Your task to perform on an android device: Look up the best selling patio furniture on Home Depot Image 0: 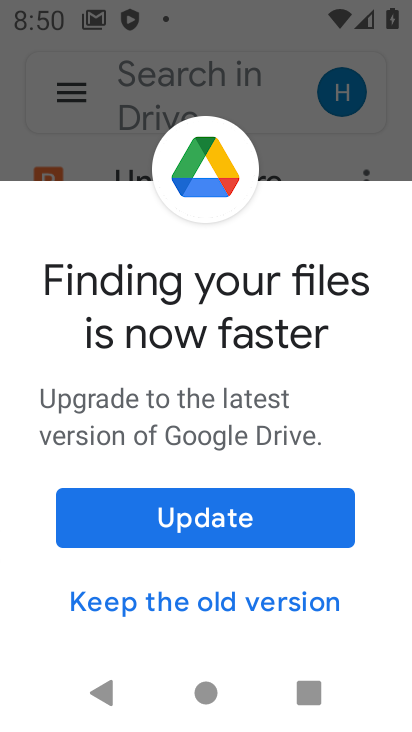
Step 0: click (369, 648)
Your task to perform on an android device: Look up the best selling patio furniture on Home Depot Image 1: 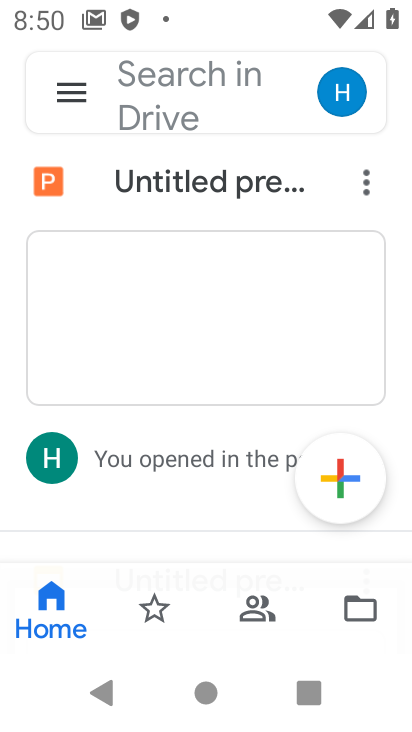
Step 1: click (203, 96)
Your task to perform on an android device: Look up the best selling patio furniture on Home Depot Image 2: 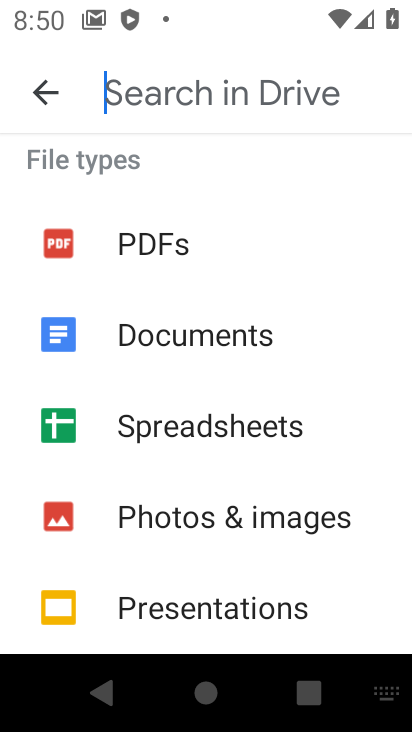
Step 2: press home button
Your task to perform on an android device: Look up the best selling patio furniture on Home Depot Image 3: 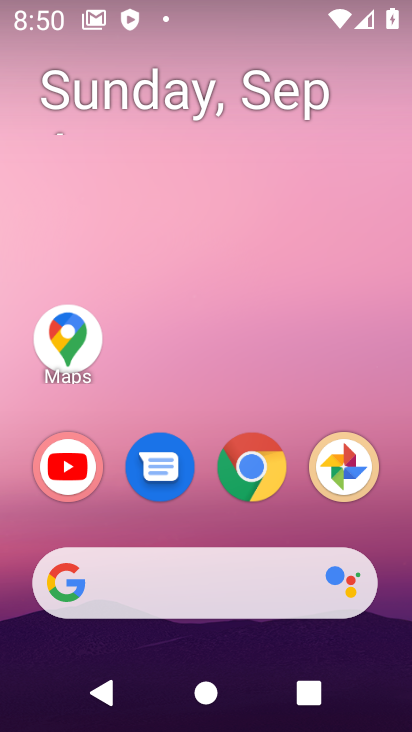
Step 3: click (254, 460)
Your task to perform on an android device: Look up the best selling patio furniture on Home Depot Image 4: 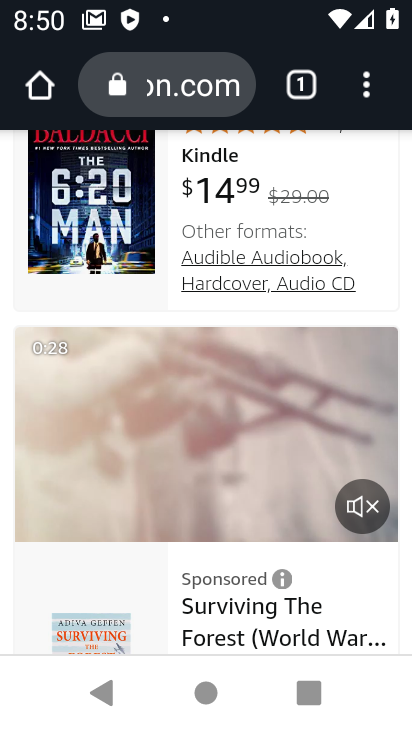
Step 4: click (142, 71)
Your task to perform on an android device: Look up the best selling patio furniture on Home Depot Image 5: 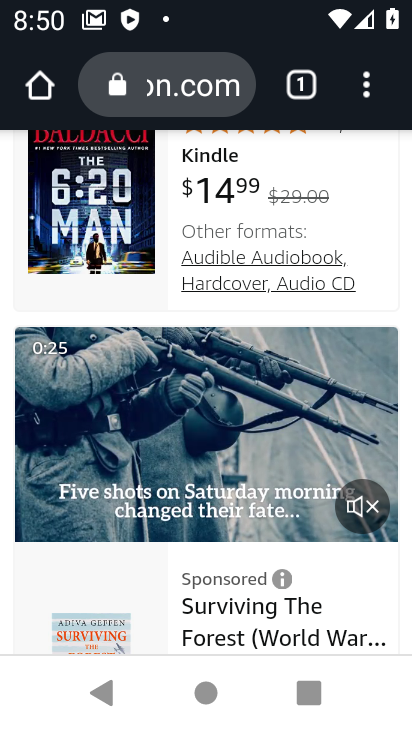
Step 5: click (227, 86)
Your task to perform on an android device: Look up the best selling patio furniture on Home Depot Image 6: 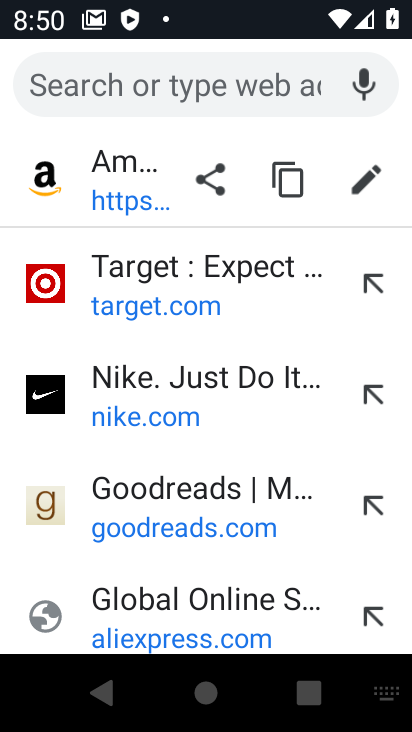
Step 6: type "home depot"
Your task to perform on an android device: Look up the best selling patio furniture on Home Depot Image 7: 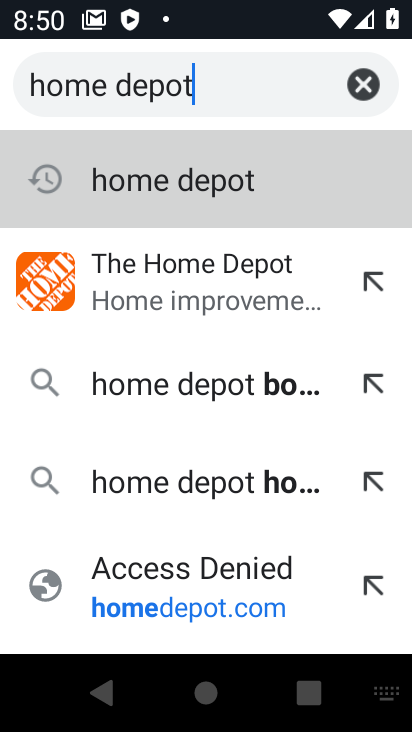
Step 7: click (161, 296)
Your task to perform on an android device: Look up the best selling patio furniture on Home Depot Image 8: 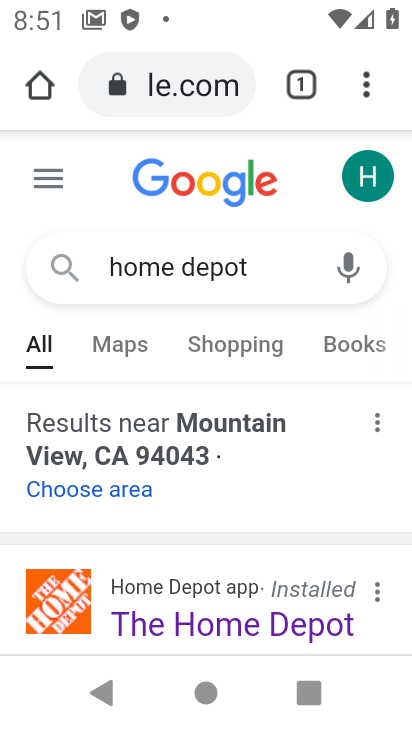
Step 8: click (146, 624)
Your task to perform on an android device: Look up the best selling patio furniture on Home Depot Image 9: 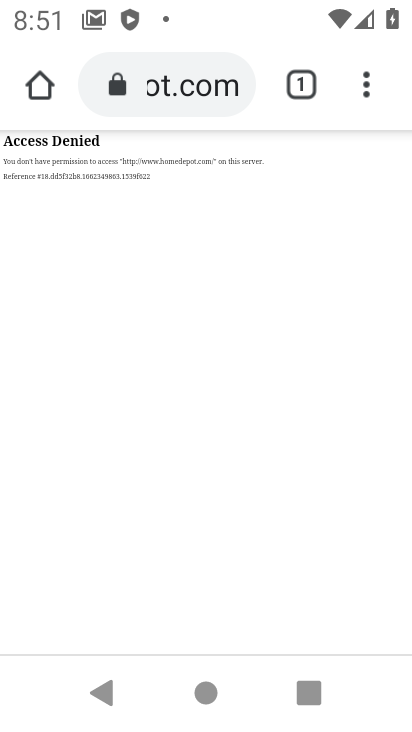
Step 9: press back button
Your task to perform on an android device: Look up the best selling patio furniture on Home Depot Image 10: 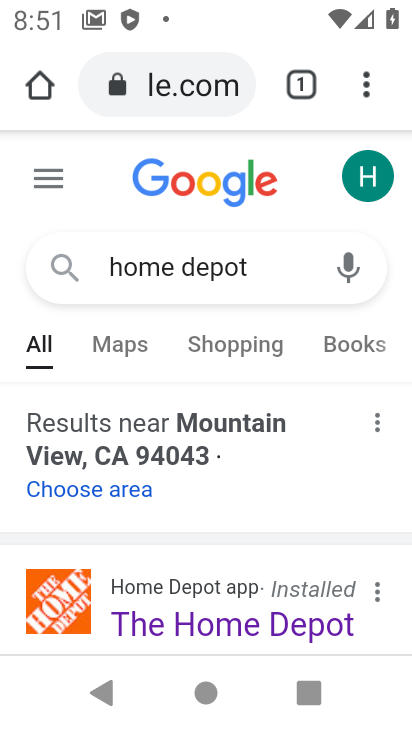
Step 10: drag from (405, 530) to (400, 263)
Your task to perform on an android device: Look up the best selling patio furniture on Home Depot Image 11: 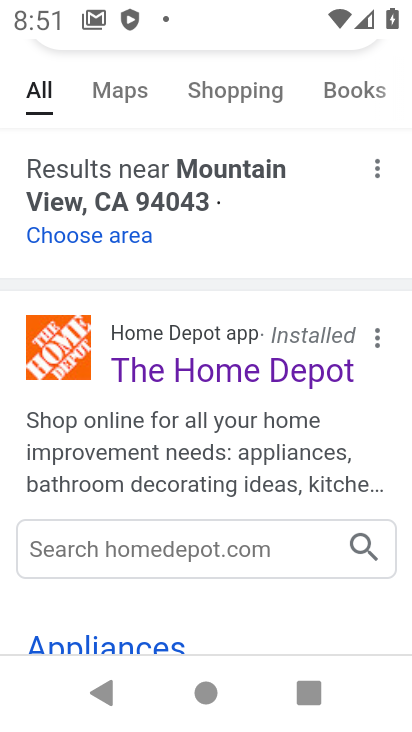
Step 11: drag from (387, 589) to (393, 232)
Your task to perform on an android device: Look up the best selling patio furniture on Home Depot Image 12: 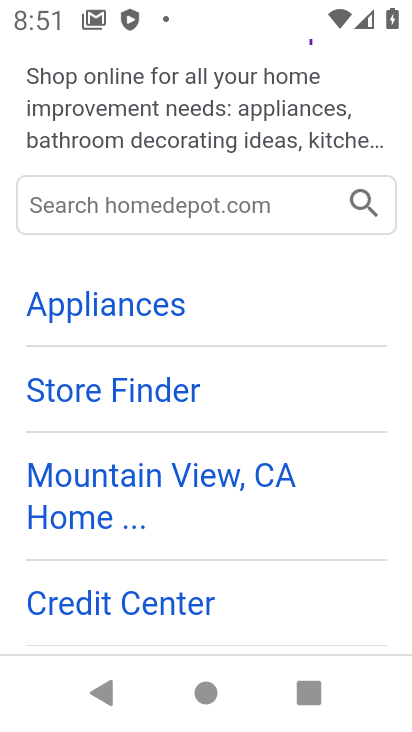
Step 12: drag from (376, 554) to (336, 332)
Your task to perform on an android device: Look up the best selling patio furniture on Home Depot Image 13: 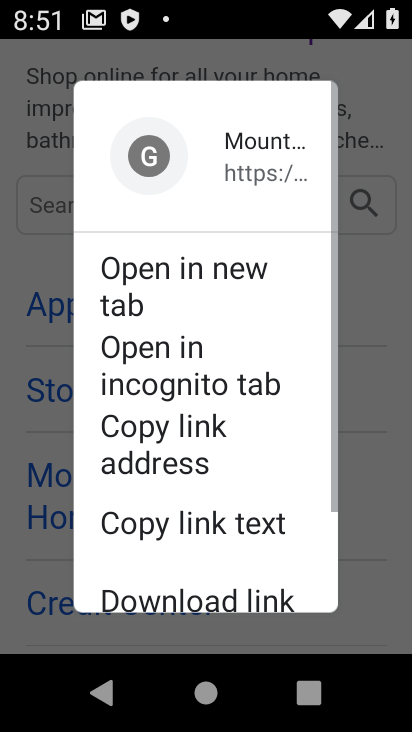
Step 13: click (361, 546)
Your task to perform on an android device: Look up the best selling patio furniture on Home Depot Image 14: 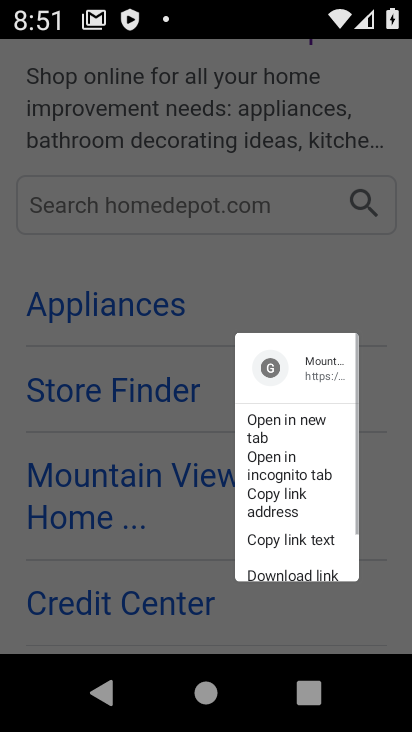
Step 14: drag from (368, 531) to (374, 135)
Your task to perform on an android device: Look up the best selling patio furniture on Home Depot Image 15: 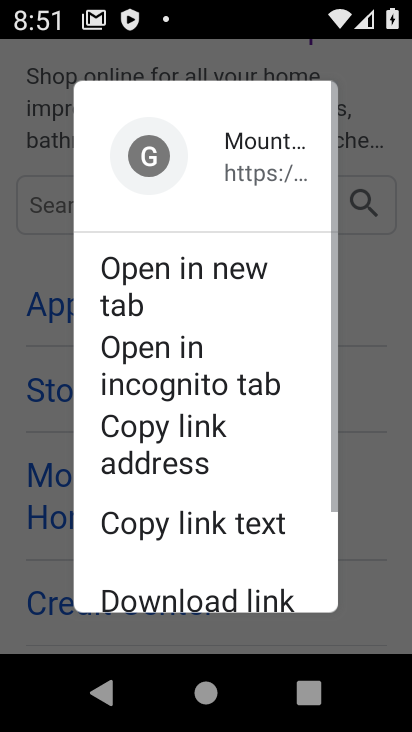
Step 15: click (387, 562)
Your task to perform on an android device: Look up the best selling patio furniture on Home Depot Image 16: 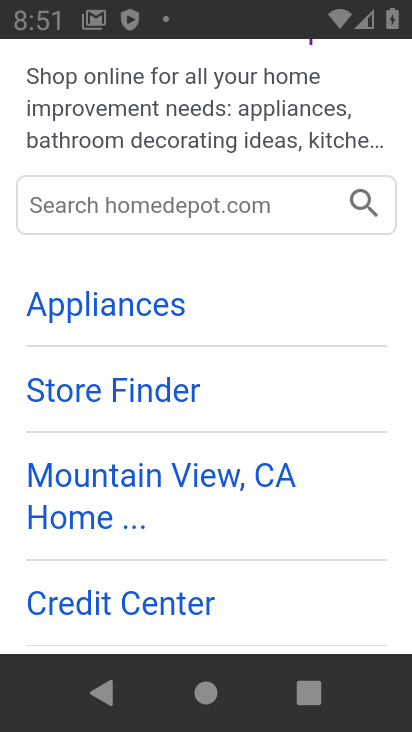
Step 16: drag from (245, 680) to (240, 231)
Your task to perform on an android device: Look up the best selling patio furniture on Home Depot Image 17: 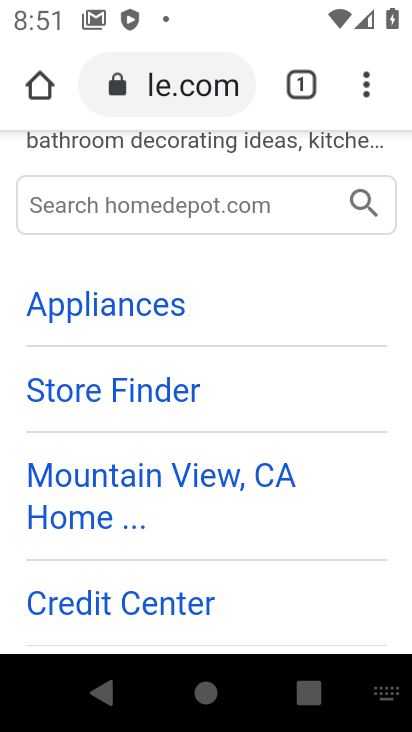
Step 17: drag from (382, 525) to (378, 463)
Your task to perform on an android device: Look up the best selling patio furniture on Home Depot Image 18: 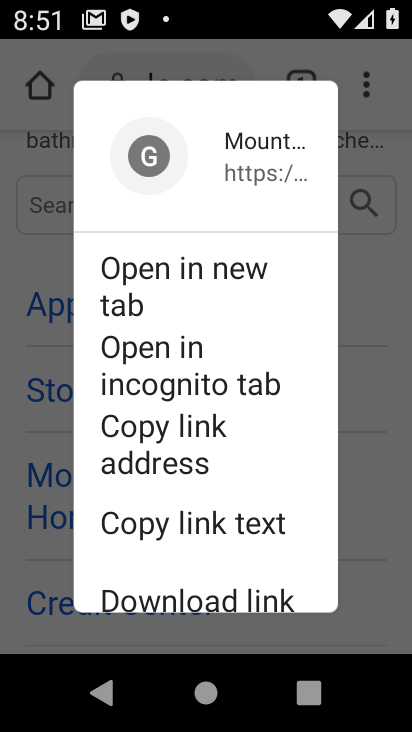
Step 18: click (391, 361)
Your task to perform on an android device: Look up the best selling patio furniture on Home Depot Image 19: 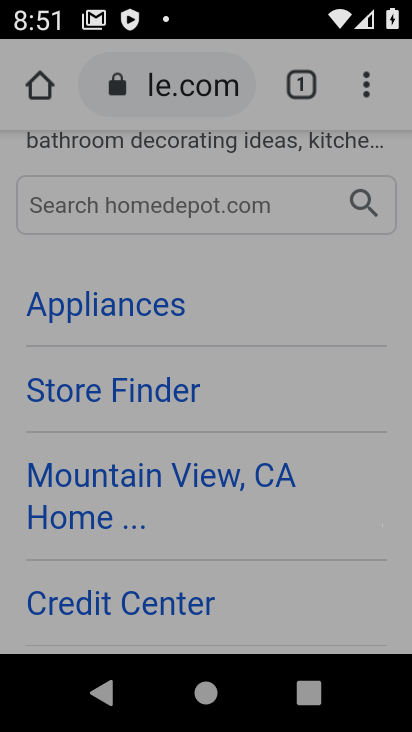
Step 19: click (398, 361)
Your task to perform on an android device: Look up the best selling patio furniture on Home Depot Image 20: 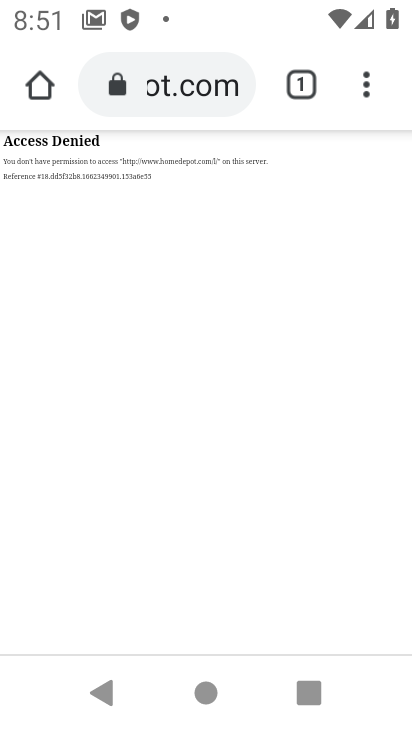
Step 20: task complete